Your task to perform on an android device: Search for flights from Mexico city to Boston Image 0: 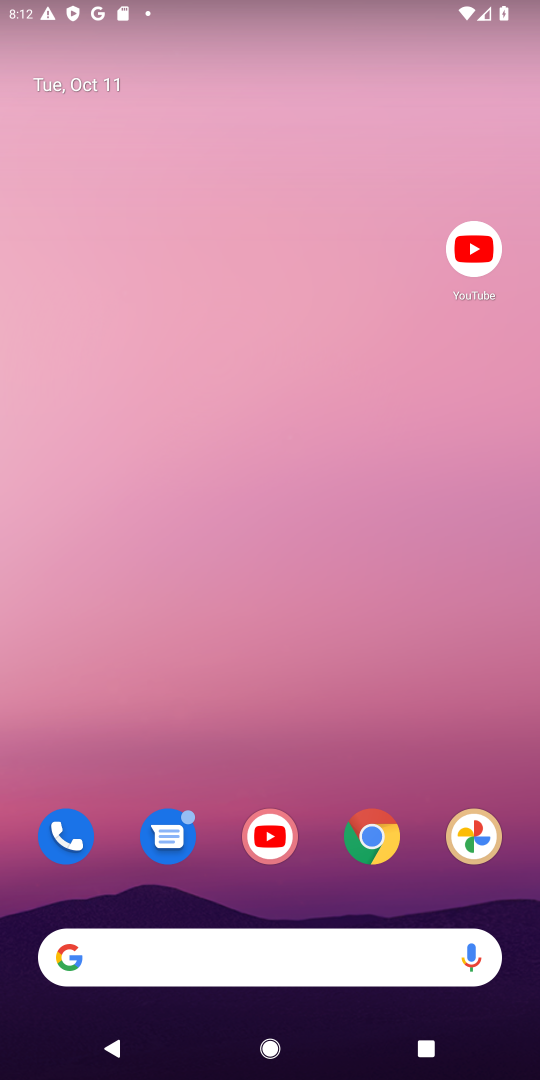
Step 0: click (369, 829)
Your task to perform on an android device: Search for flights from Mexico city to Boston Image 1: 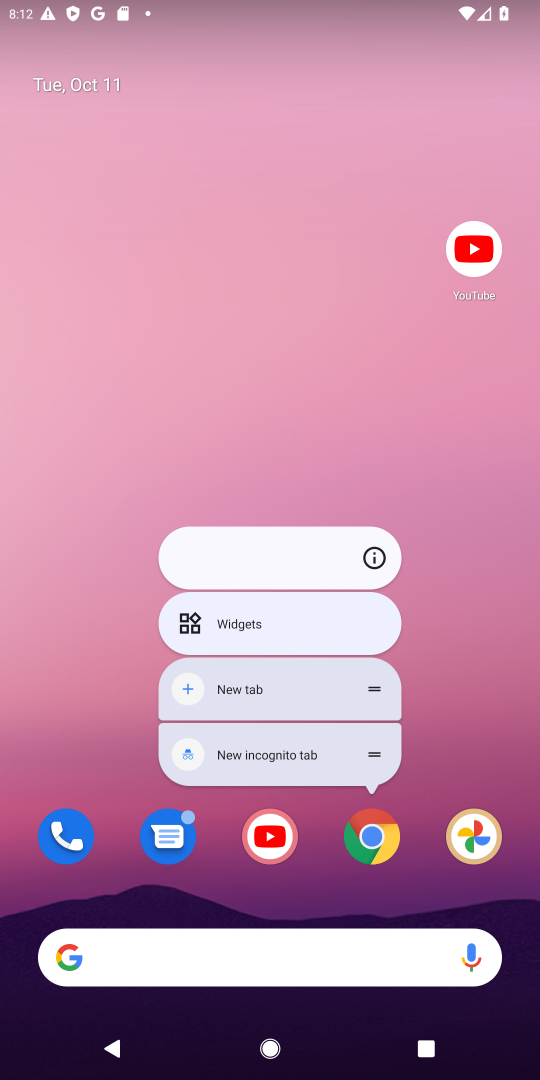
Step 1: click (369, 839)
Your task to perform on an android device: Search for flights from Mexico city to Boston Image 2: 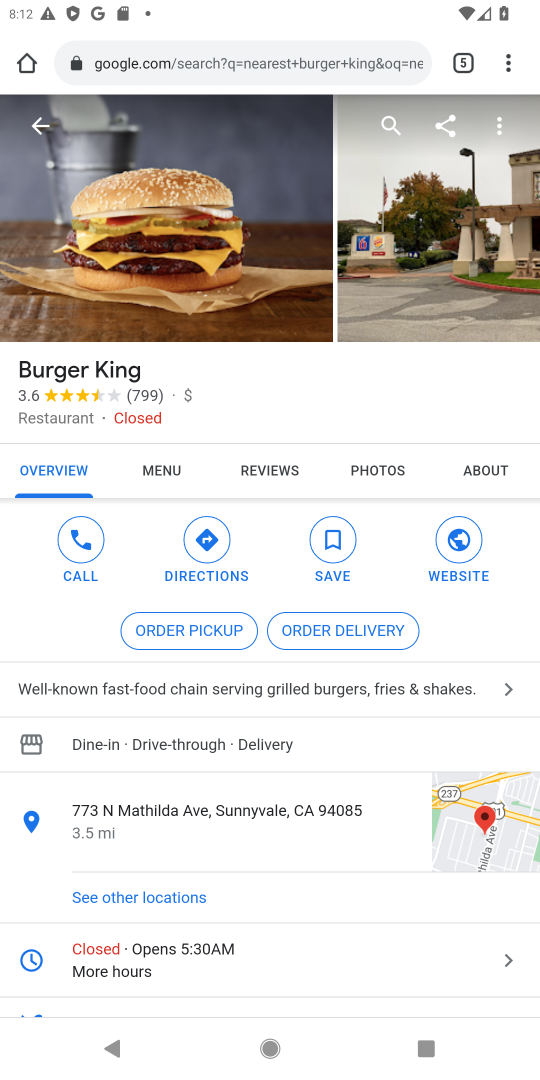
Step 2: click (349, 60)
Your task to perform on an android device: Search for flights from Mexico city to Boston Image 3: 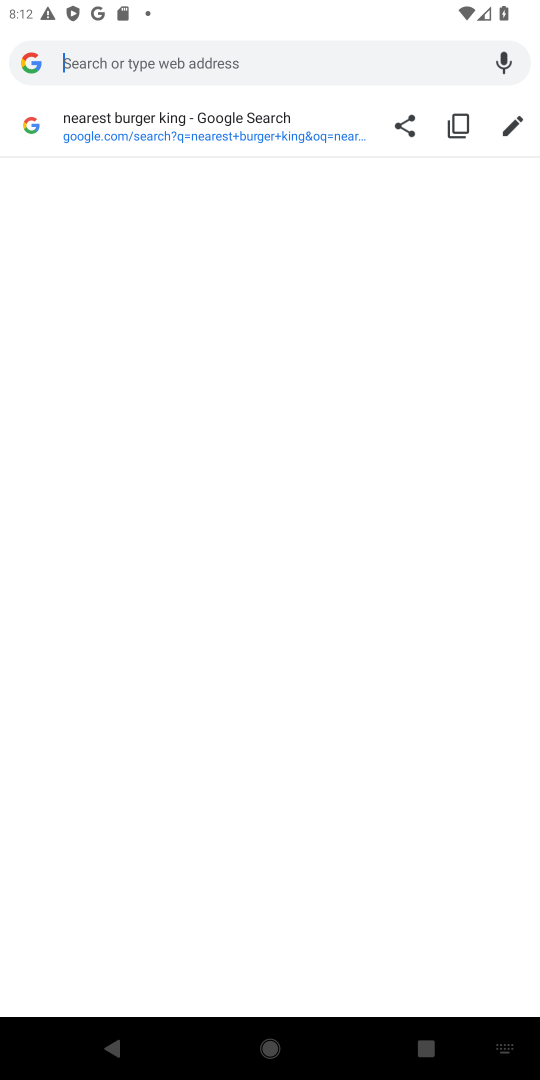
Step 3: type "flights from Mexico city to Boston"
Your task to perform on an android device: Search for flights from Mexico city to Boston Image 4: 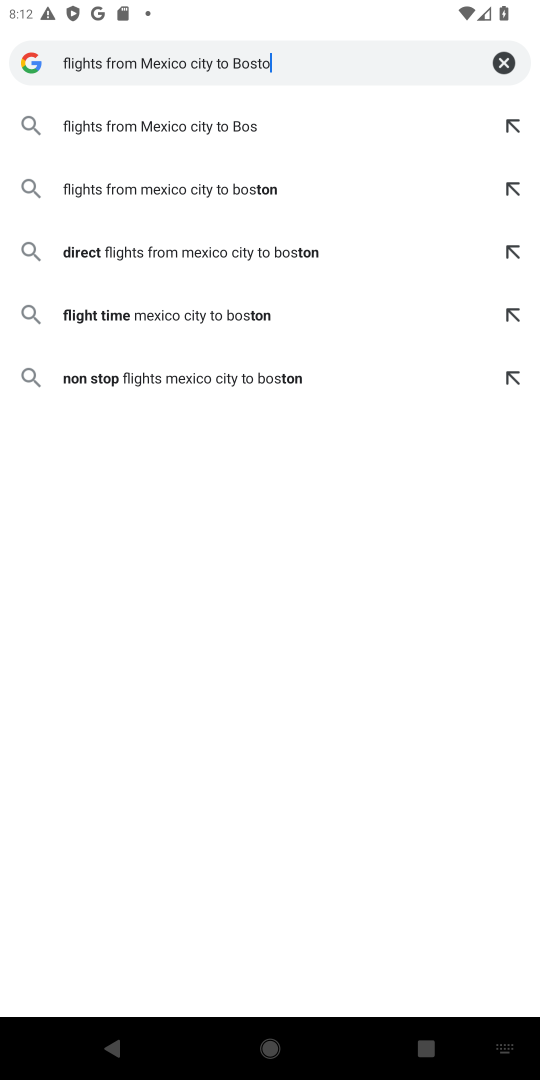
Step 4: press enter
Your task to perform on an android device: Search for flights from Mexico city to Boston Image 5: 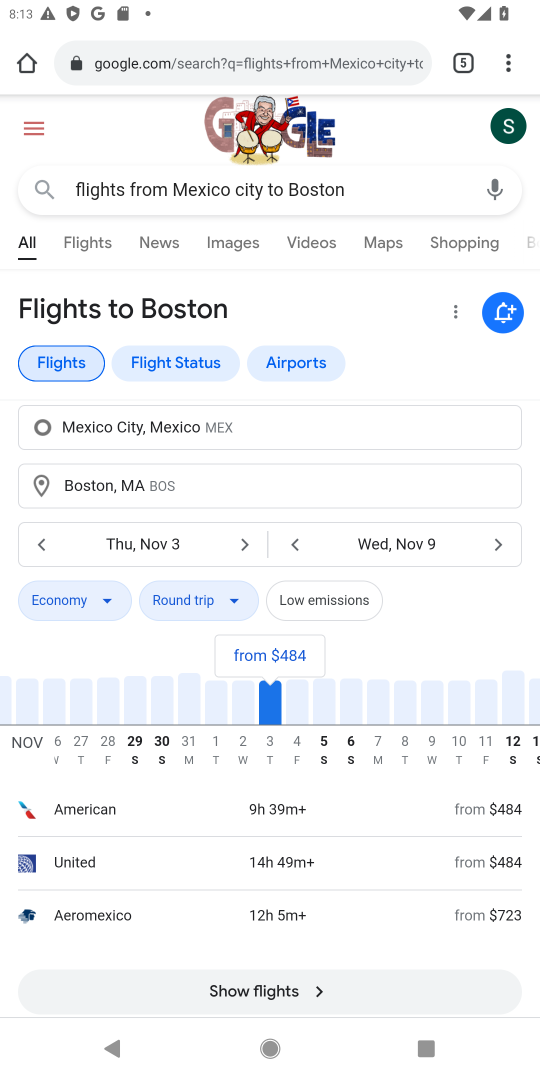
Step 5: drag from (189, 884) to (441, 262)
Your task to perform on an android device: Search for flights from Mexico city to Boston Image 6: 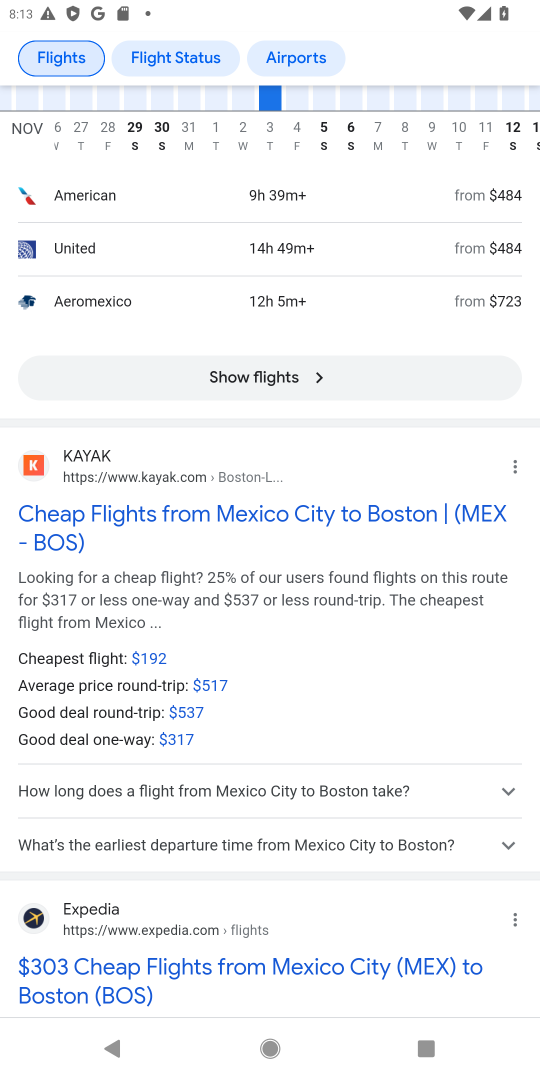
Step 6: click (298, 370)
Your task to perform on an android device: Search for flights from Mexico city to Boston Image 7: 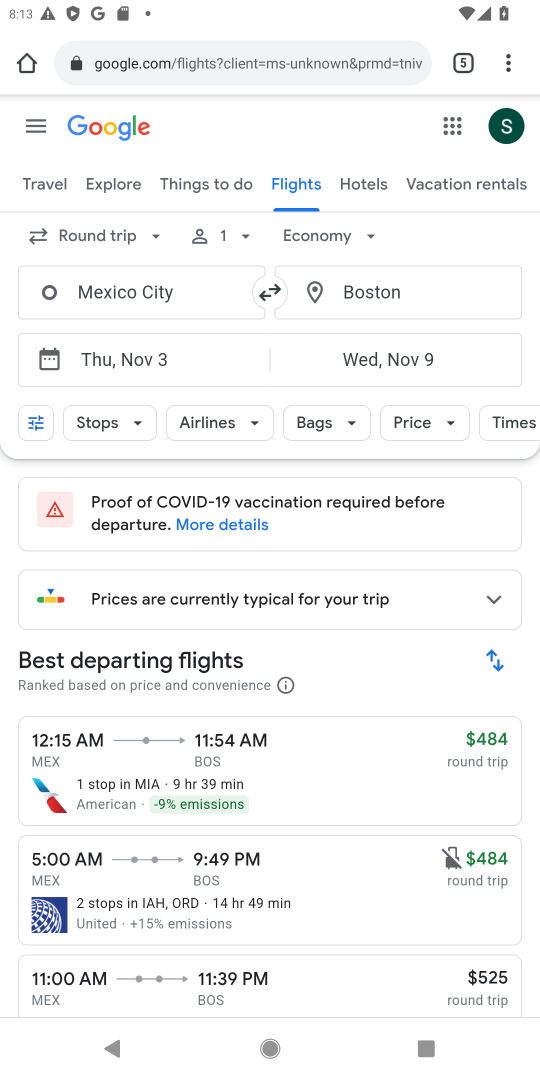
Step 7: task complete